Your task to perform on an android device: turn on data saver in the chrome app Image 0: 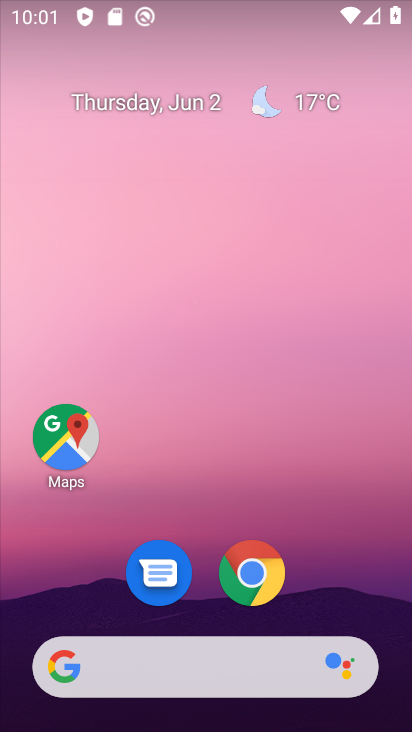
Step 0: click (255, 573)
Your task to perform on an android device: turn on data saver in the chrome app Image 1: 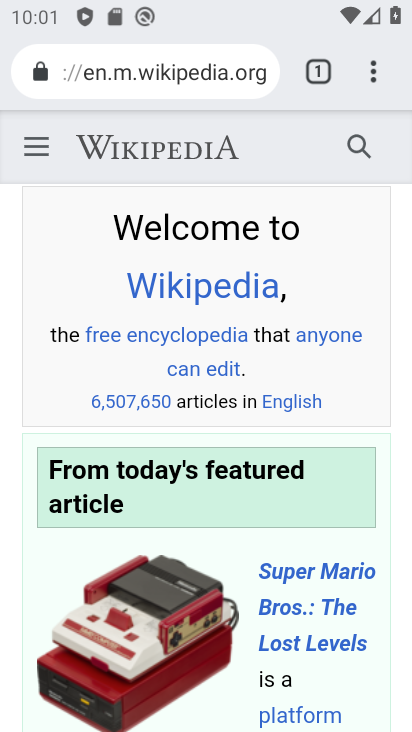
Step 1: click (373, 69)
Your task to perform on an android device: turn on data saver in the chrome app Image 2: 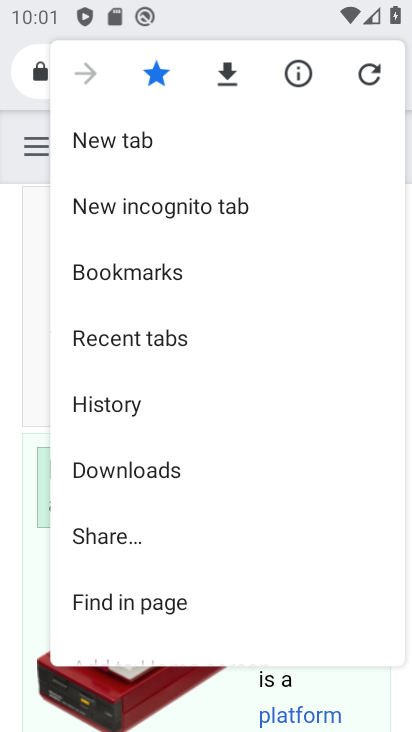
Step 2: drag from (163, 512) to (211, 409)
Your task to perform on an android device: turn on data saver in the chrome app Image 3: 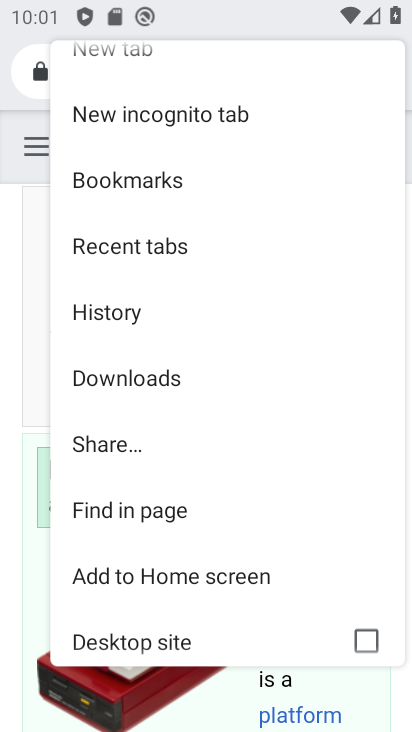
Step 3: drag from (154, 473) to (161, 373)
Your task to perform on an android device: turn on data saver in the chrome app Image 4: 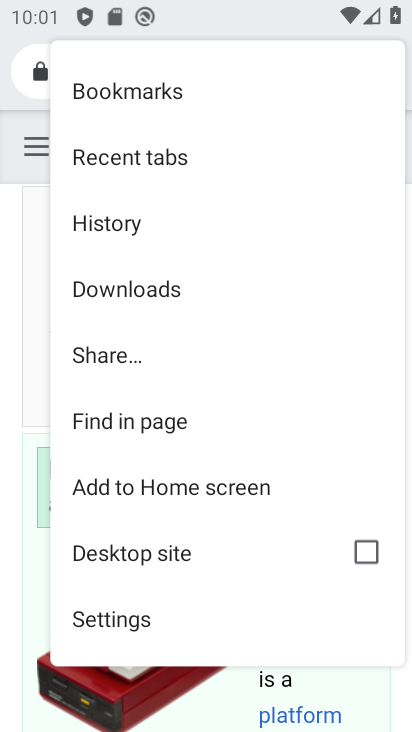
Step 4: drag from (153, 452) to (194, 358)
Your task to perform on an android device: turn on data saver in the chrome app Image 5: 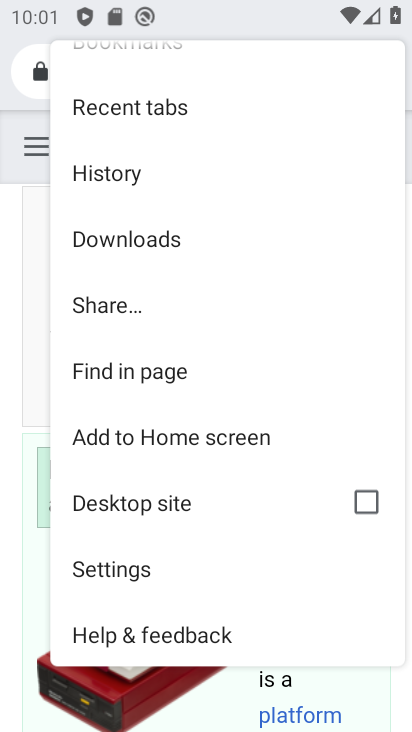
Step 5: click (142, 565)
Your task to perform on an android device: turn on data saver in the chrome app Image 6: 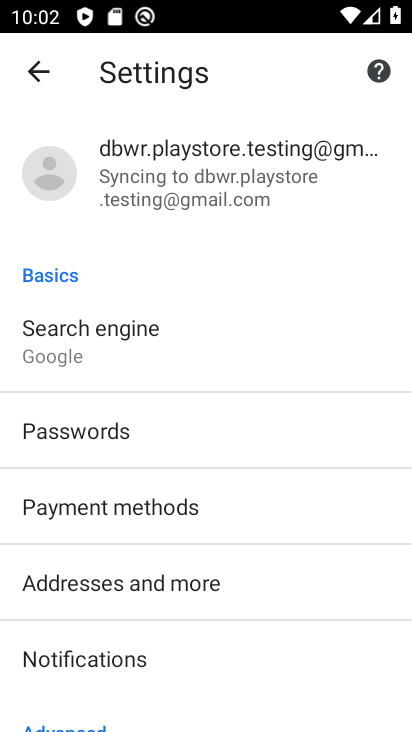
Step 6: drag from (194, 667) to (236, 494)
Your task to perform on an android device: turn on data saver in the chrome app Image 7: 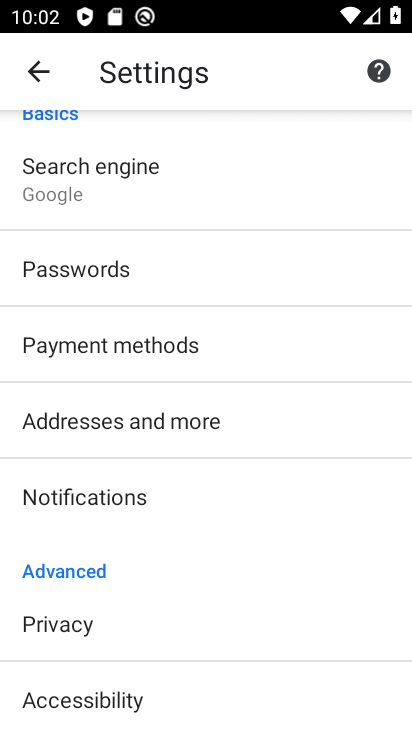
Step 7: drag from (165, 620) to (195, 484)
Your task to perform on an android device: turn on data saver in the chrome app Image 8: 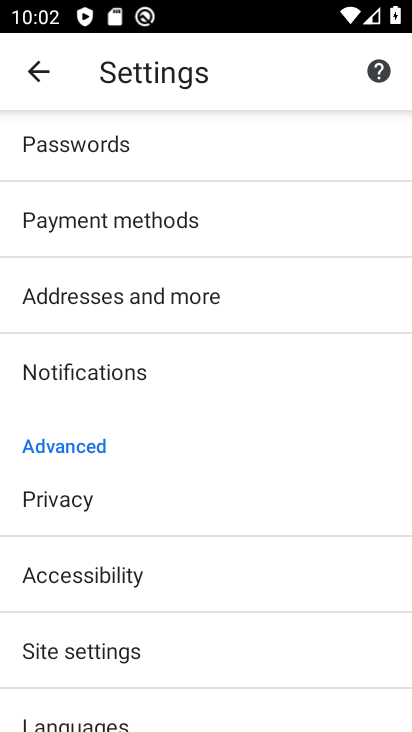
Step 8: drag from (180, 586) to (210, 464)
Your task to perform on an android device: turn on data saver in the chrome app Image 9: 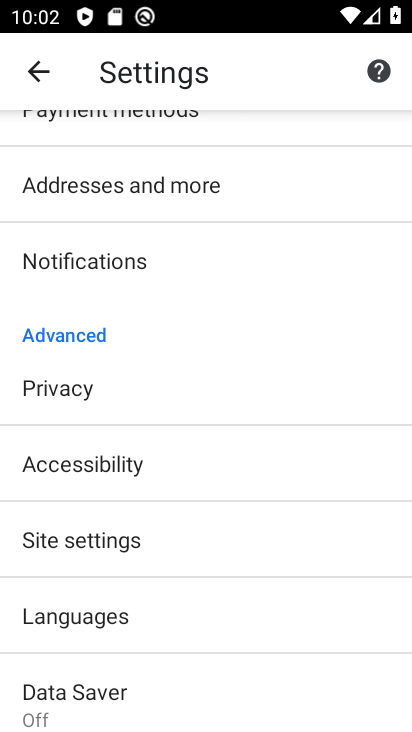
Step 9: drag from (173, 625) to (225, 493)
Your task to perform on an android device: turn on data saver in the chrome app Image 10: 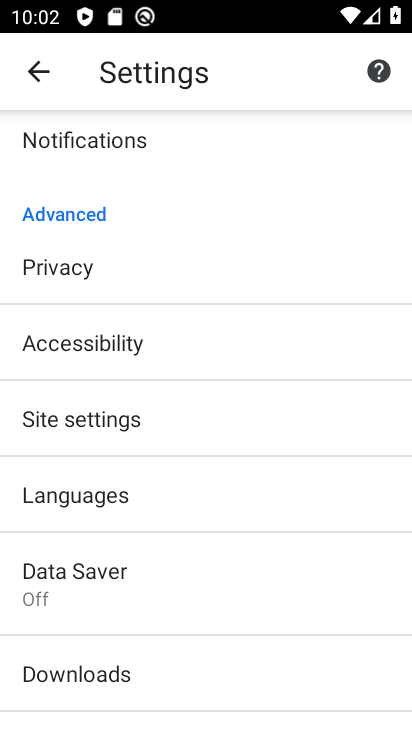
Step 10: click (92, 583)
Your task to perform on an android device: turn on data saver in the chrome app Image 11: 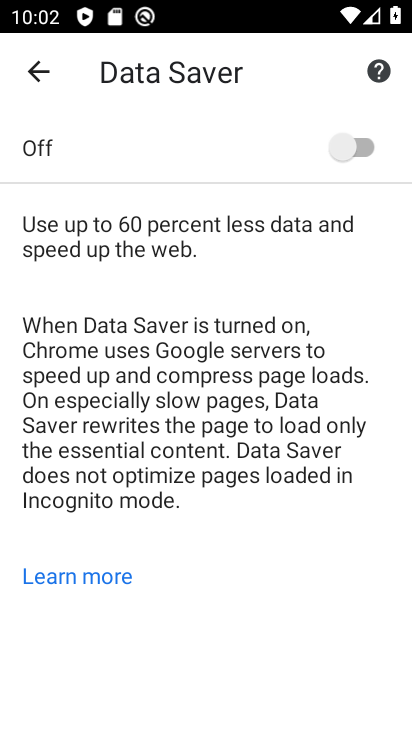
Step 11: click (364, 146)
Your task to perform on an android device: turn on data saver in the chrome app Image 12: 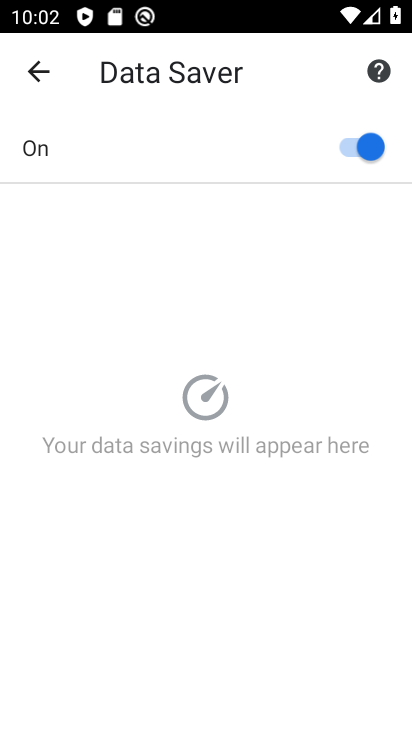
Step 12: task complete